Your task to perform on an android device: Open Google Maps Image 0: 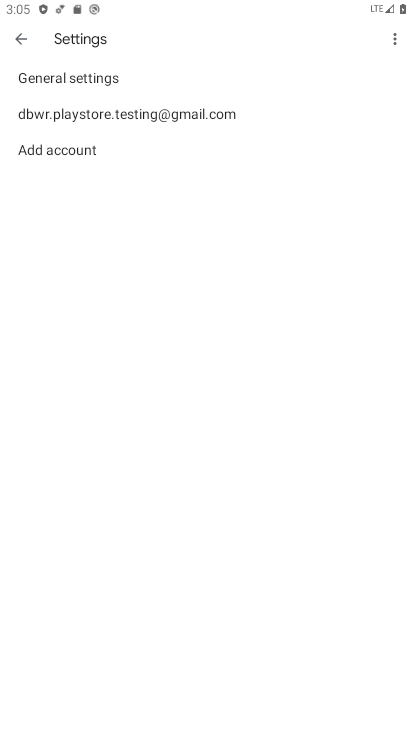
Step 0: drag from (164, 676) to (209, 203)
Your task to perform on an android device: Open Google Maps Image 1: 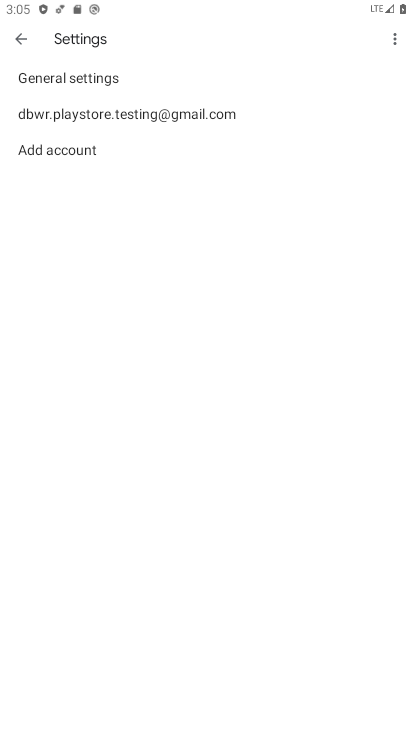
Step 1: press home button
Your task to perform on an android device: Open Google Maps Image 2: 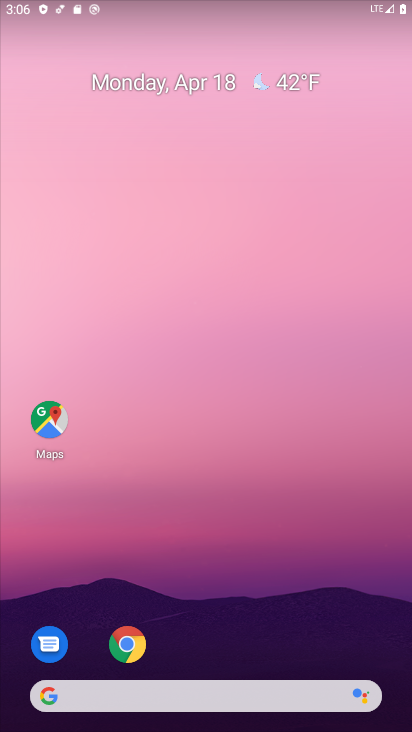
Step 2: click (58, 414)
Your task to perform on an android device: Open Google Maps Image 3: 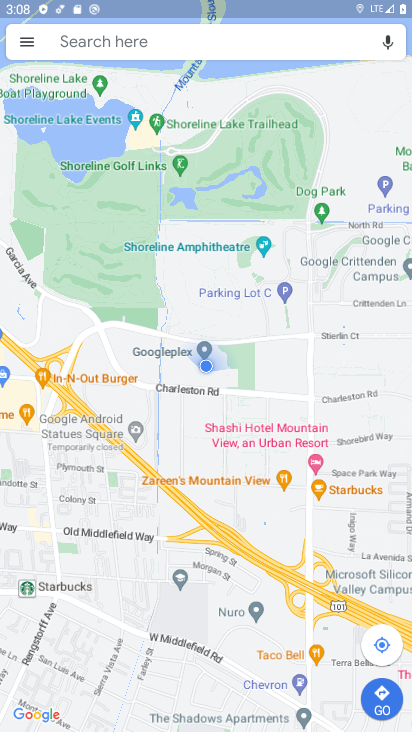
Step 3: task complete